Your task to perform on an android device: move an email to a new category in the gmail app Image 0: 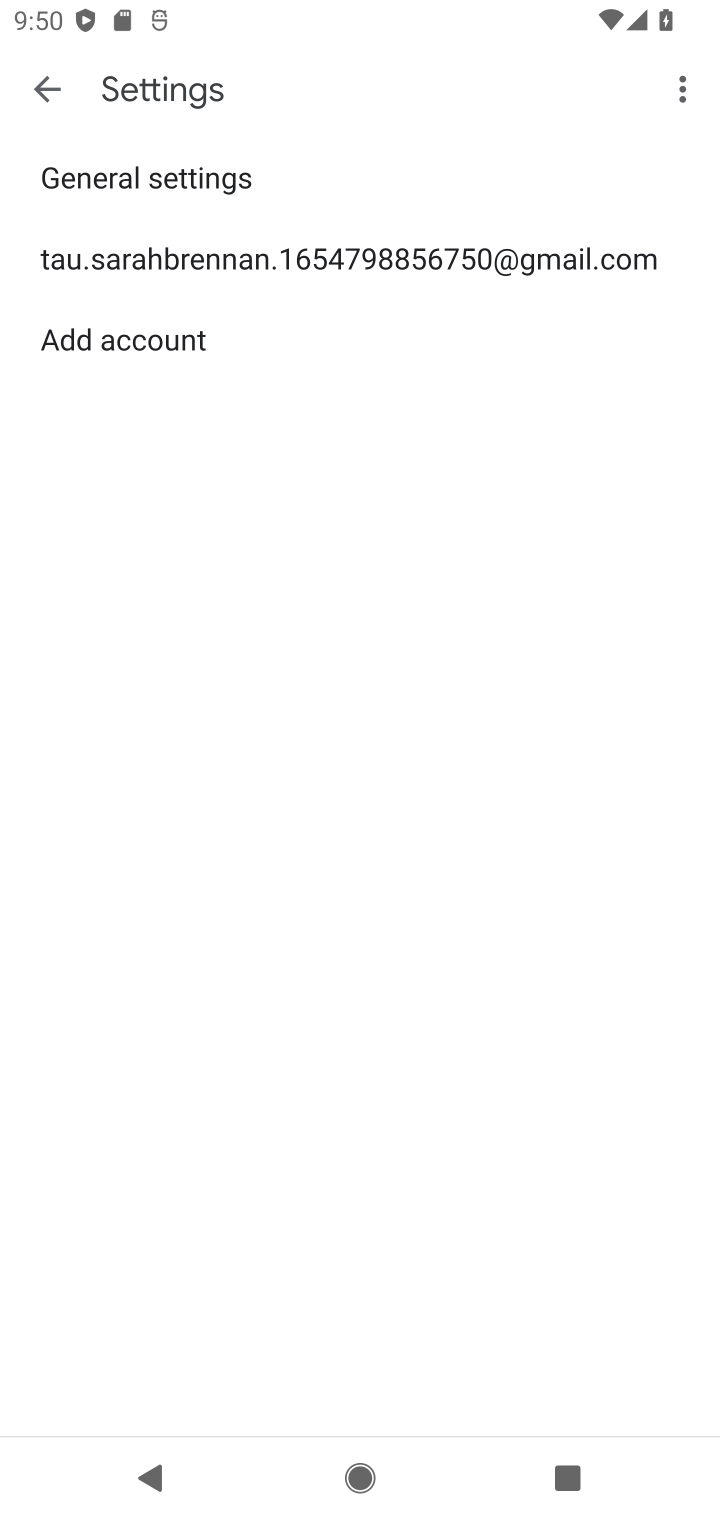
Step 0: press back button
Your task to perform on an android device: move an email to a new category in the gmail app Image 1: 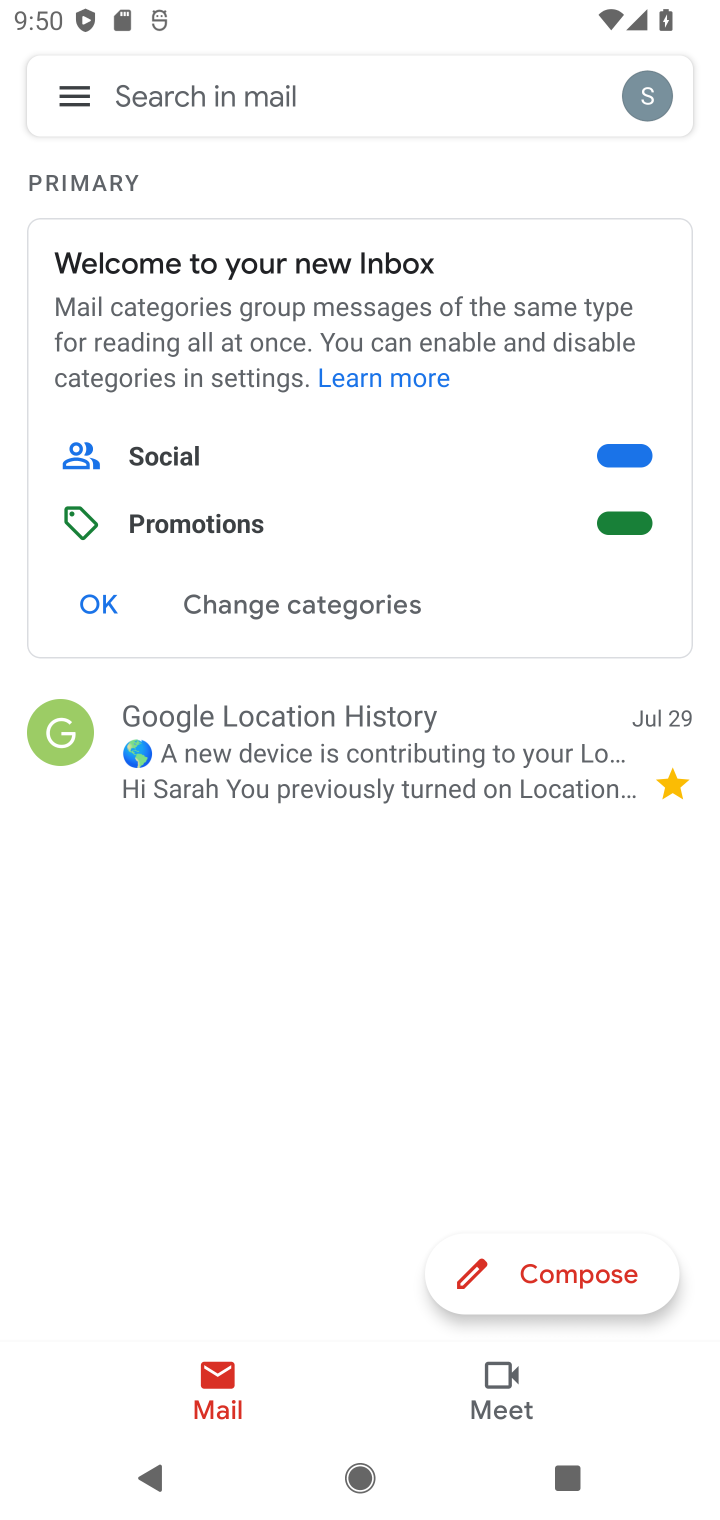
Step 1: press back button
Your task to perform on an android device: move an email to a new category in the gmail app Image 2: 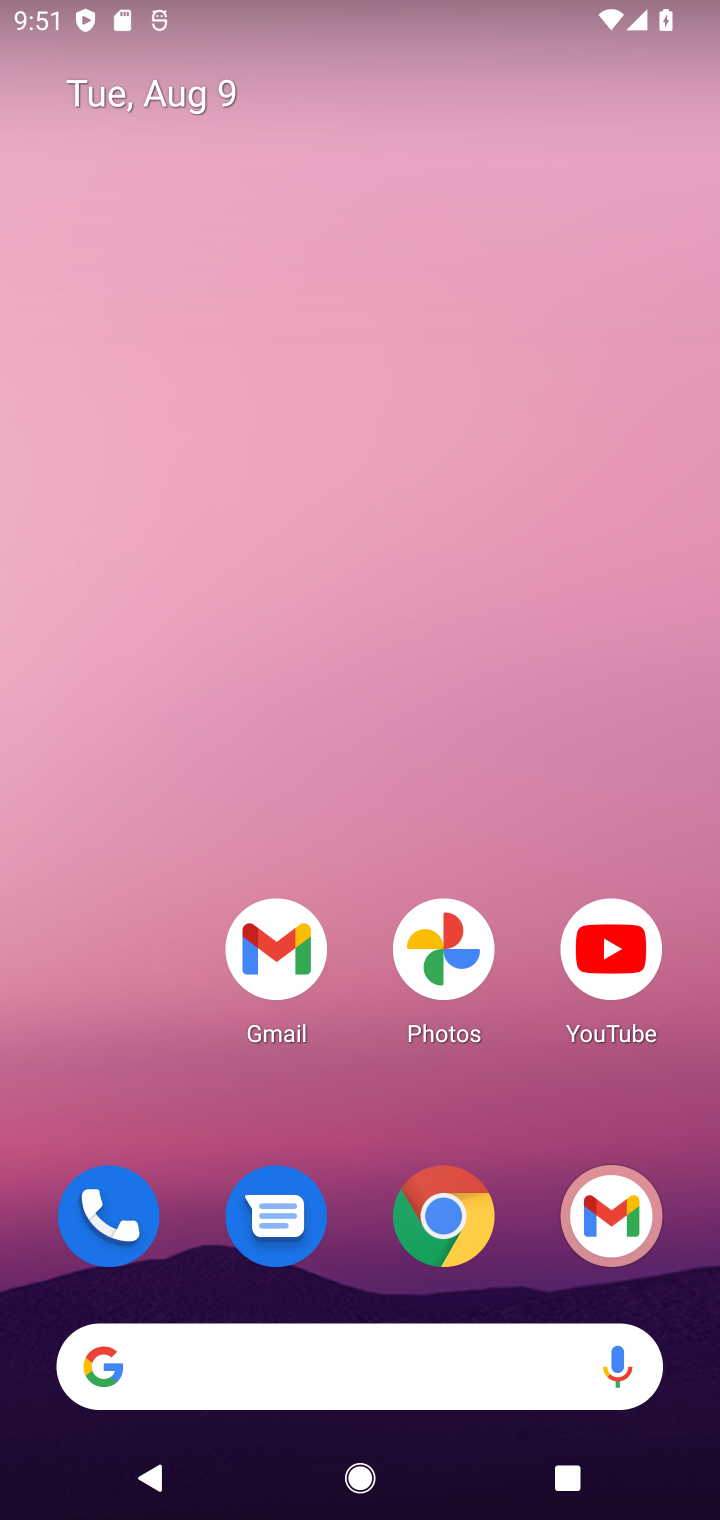
Step 2: click (282, 952)
Your task to perform on an android device: move an email to a new category in the gmail app Image 3: 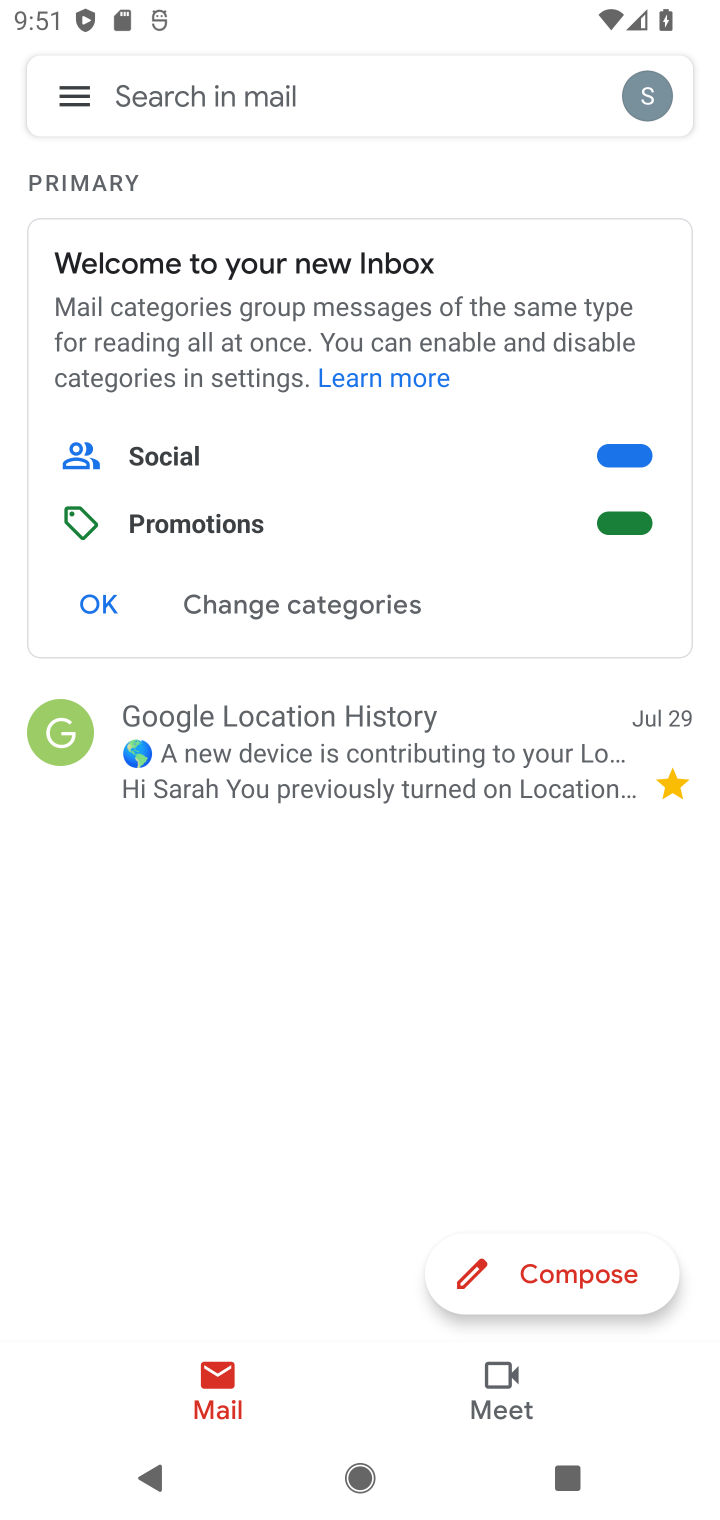
Step 3: click (291, 781)
Your task to perform on an android device: move an email to a new category in the gmail app Image 4: 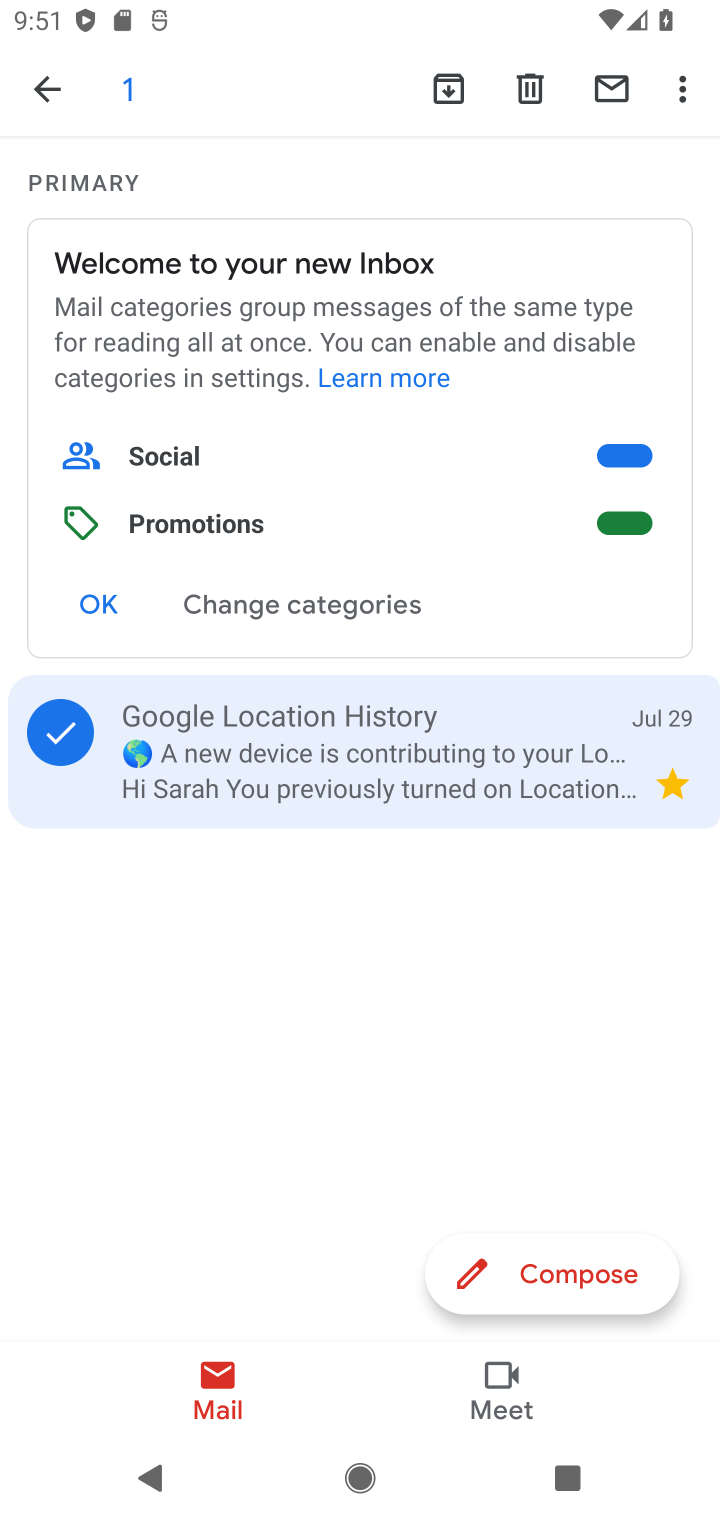
Step 4: click (690, 72)
Your task to perform on an android device: move an email to a new category in the gmail app Image 5: 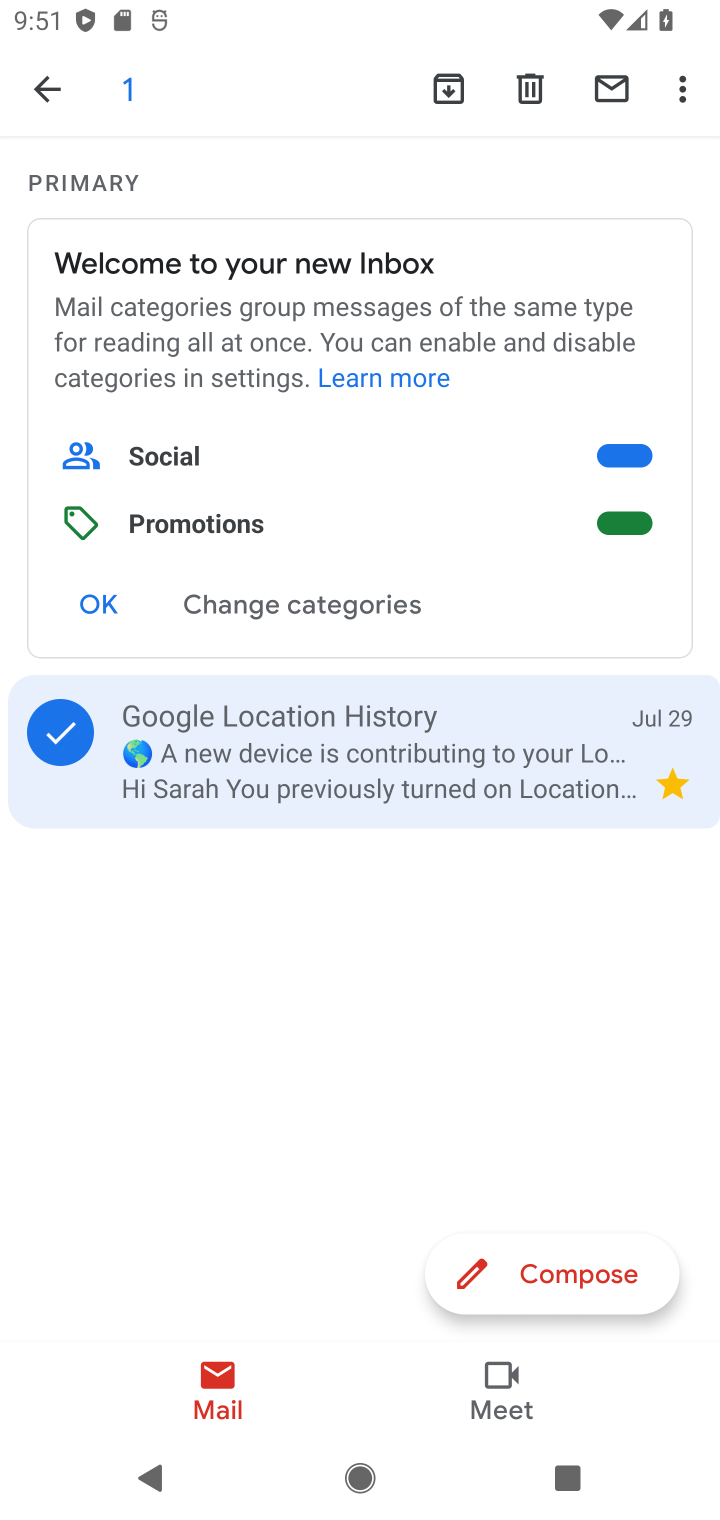
Step 5: click (676, 90)
Your task to perform on an android device: move an email to a new category in the gmail app Image 6: 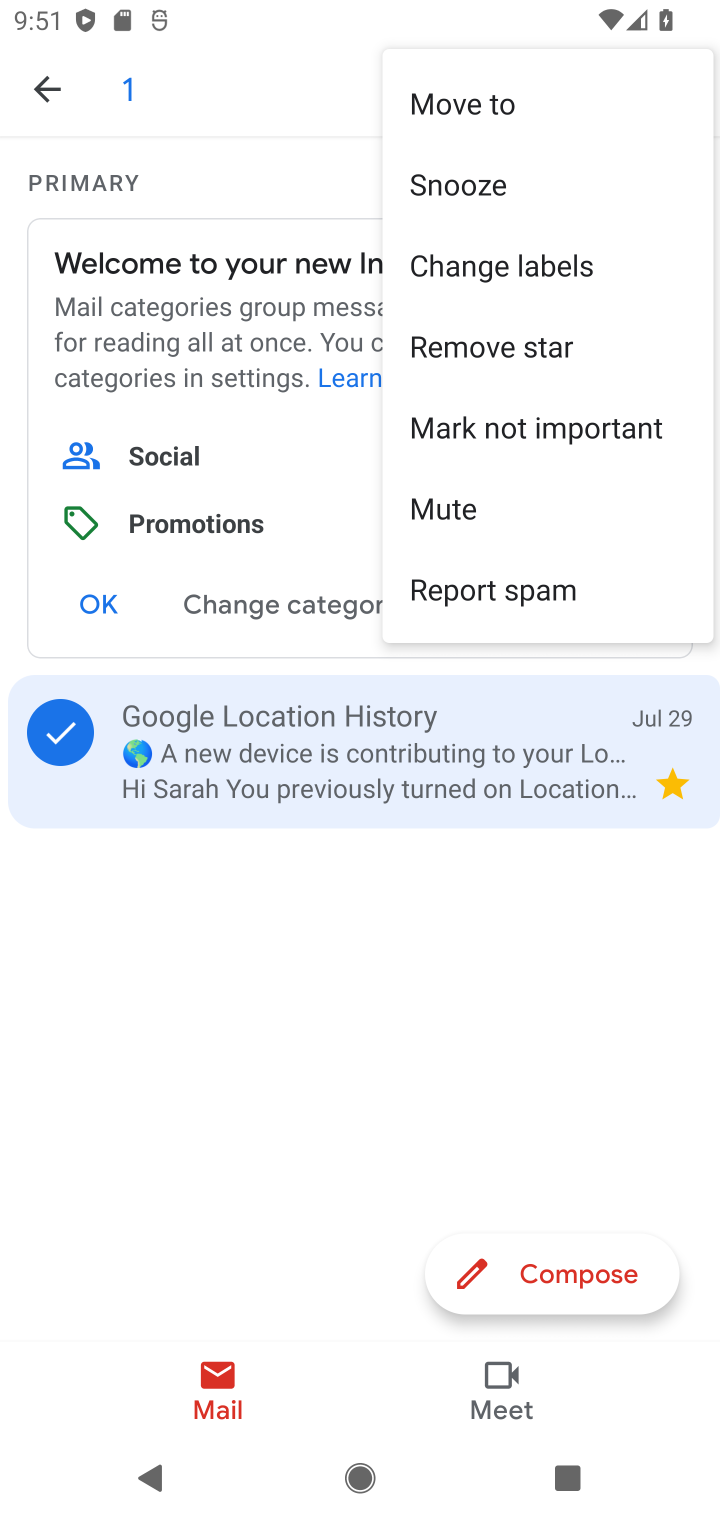
Step 6: click (457, 96)
Your task to perform on an android device: move an email to a new category in the gmail app Image 7: 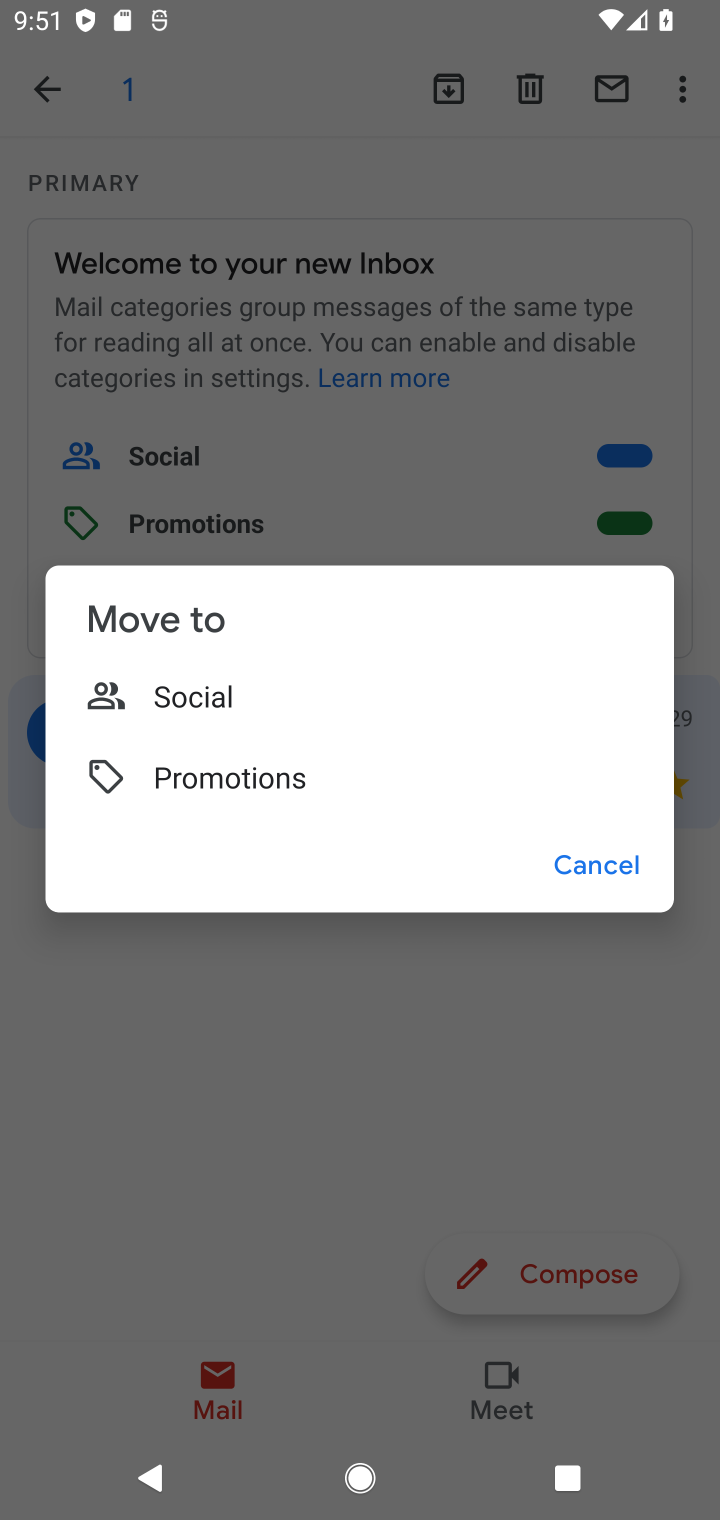
Step 7: click (598, 870)
Your task to perform on an android device: move an email to a new category in the gmail app Image 8: 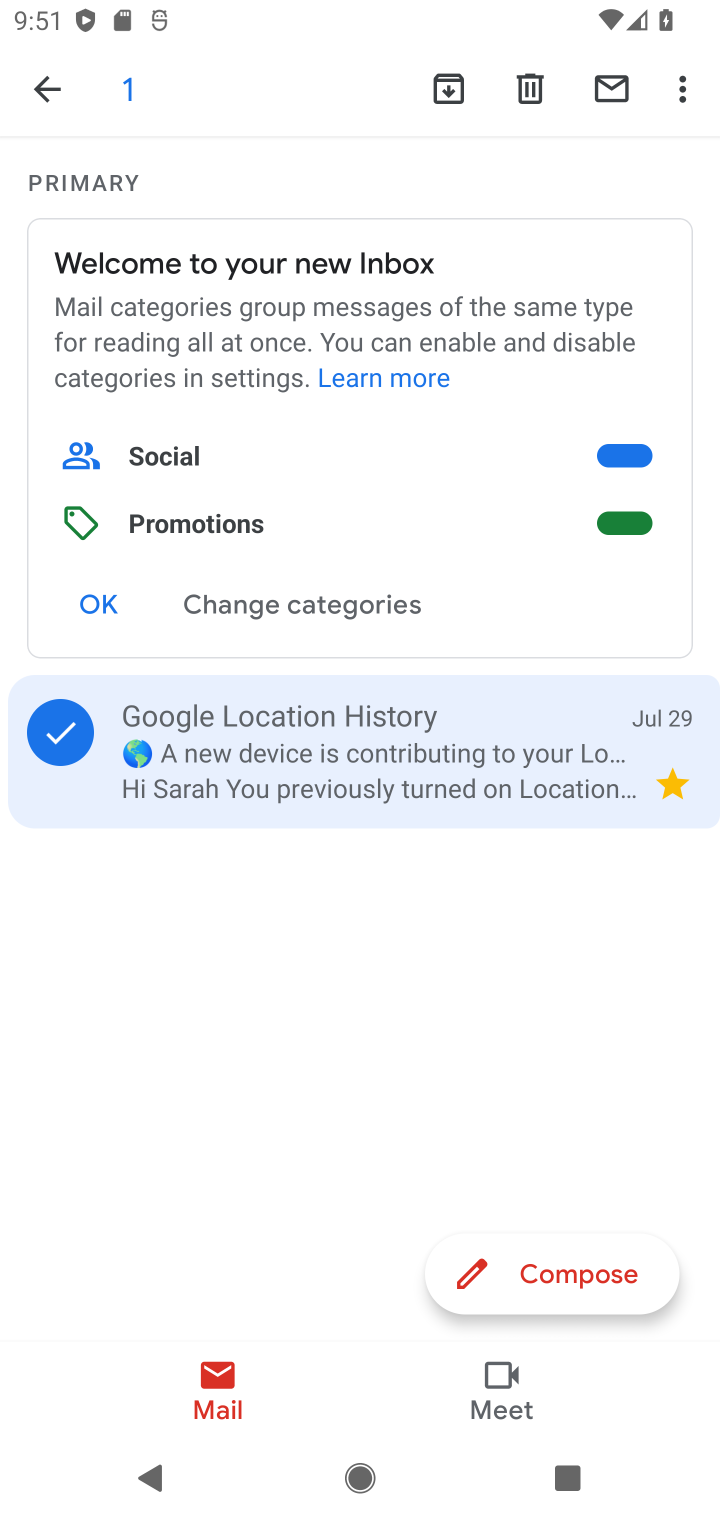
Step 8: click (668, 83)
Your task to perform on an android device: move an email to a new category in the gmail app Image 9: 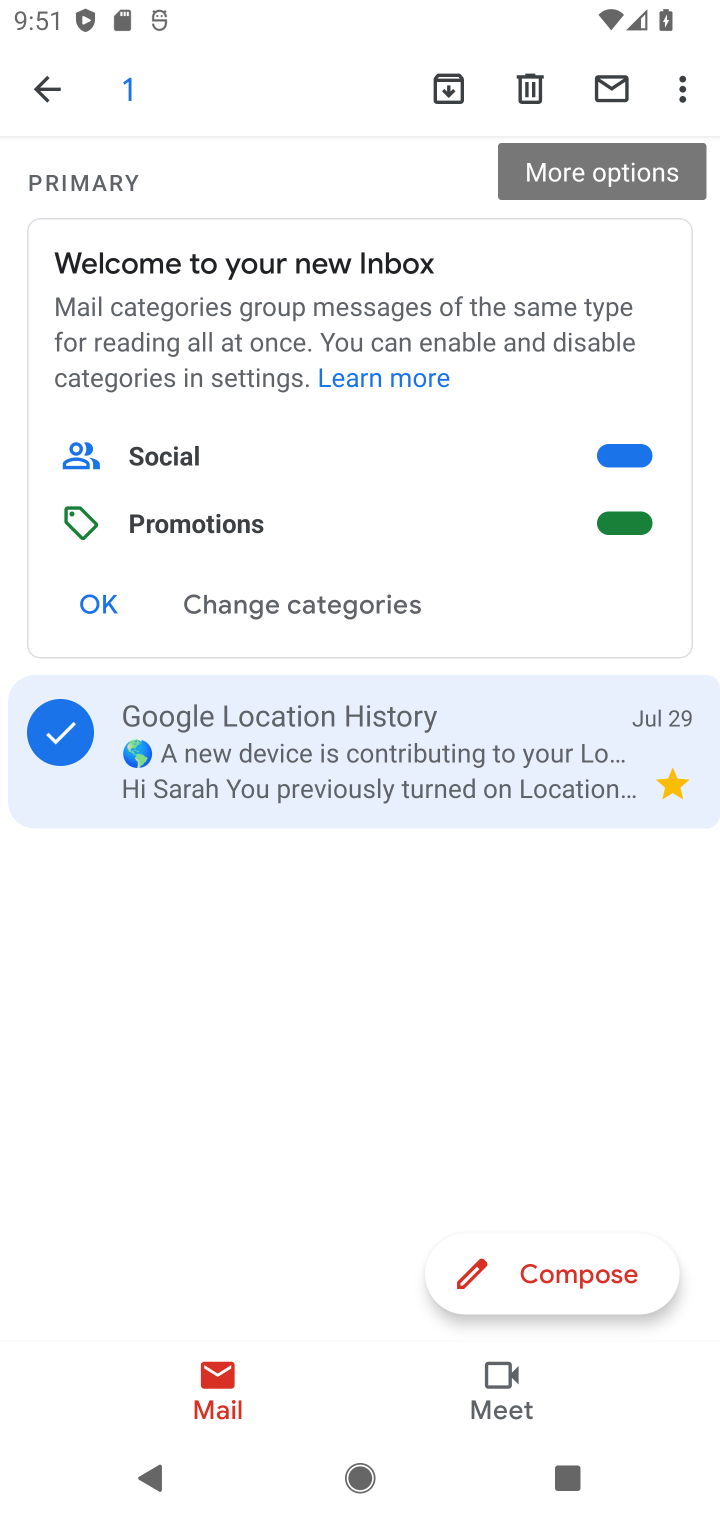
Step 9: click (694, 86)
Your task to perform on an android device: move an email to a new category in the gmail app Image 10: 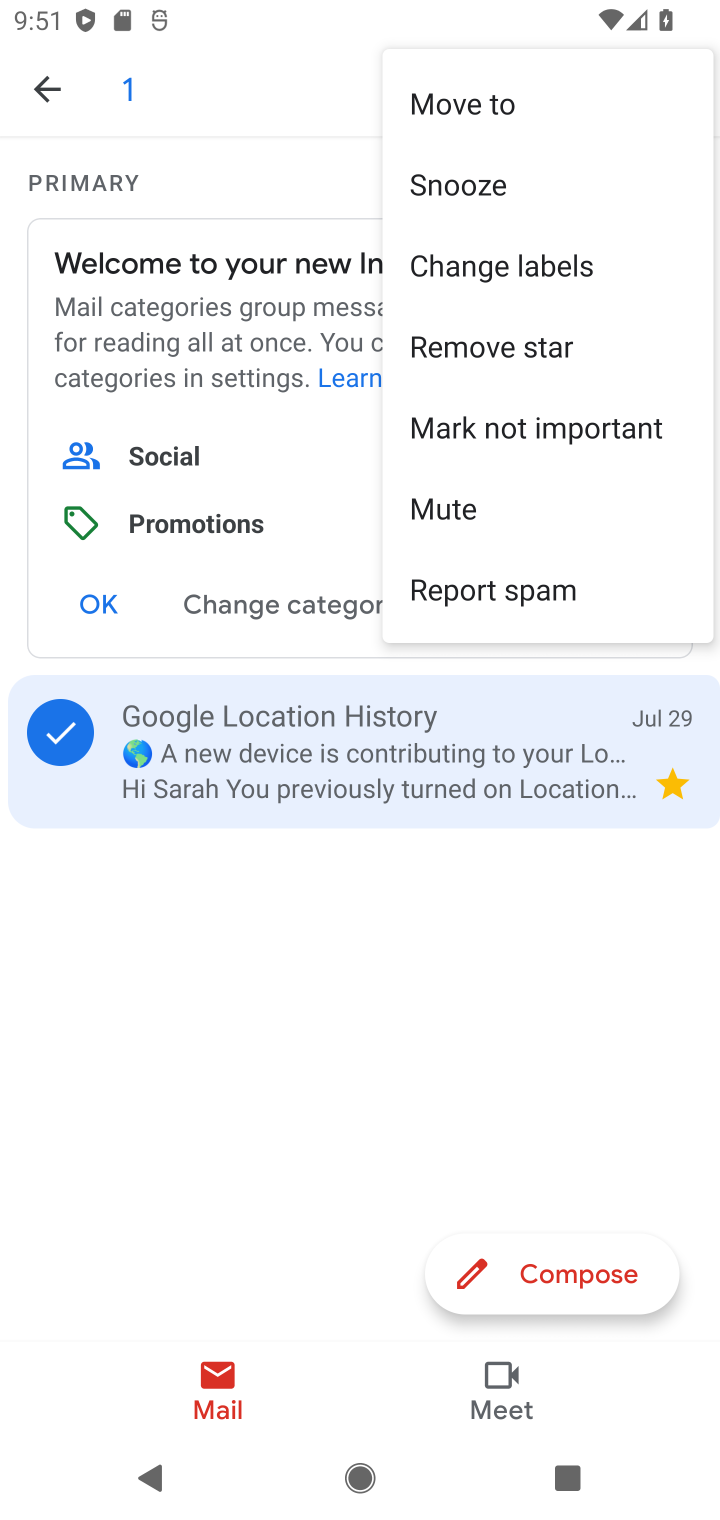
Step 10: click (515, 104)
Your task to perform on an android device: move an email to a new category in the gmail app Image 11: 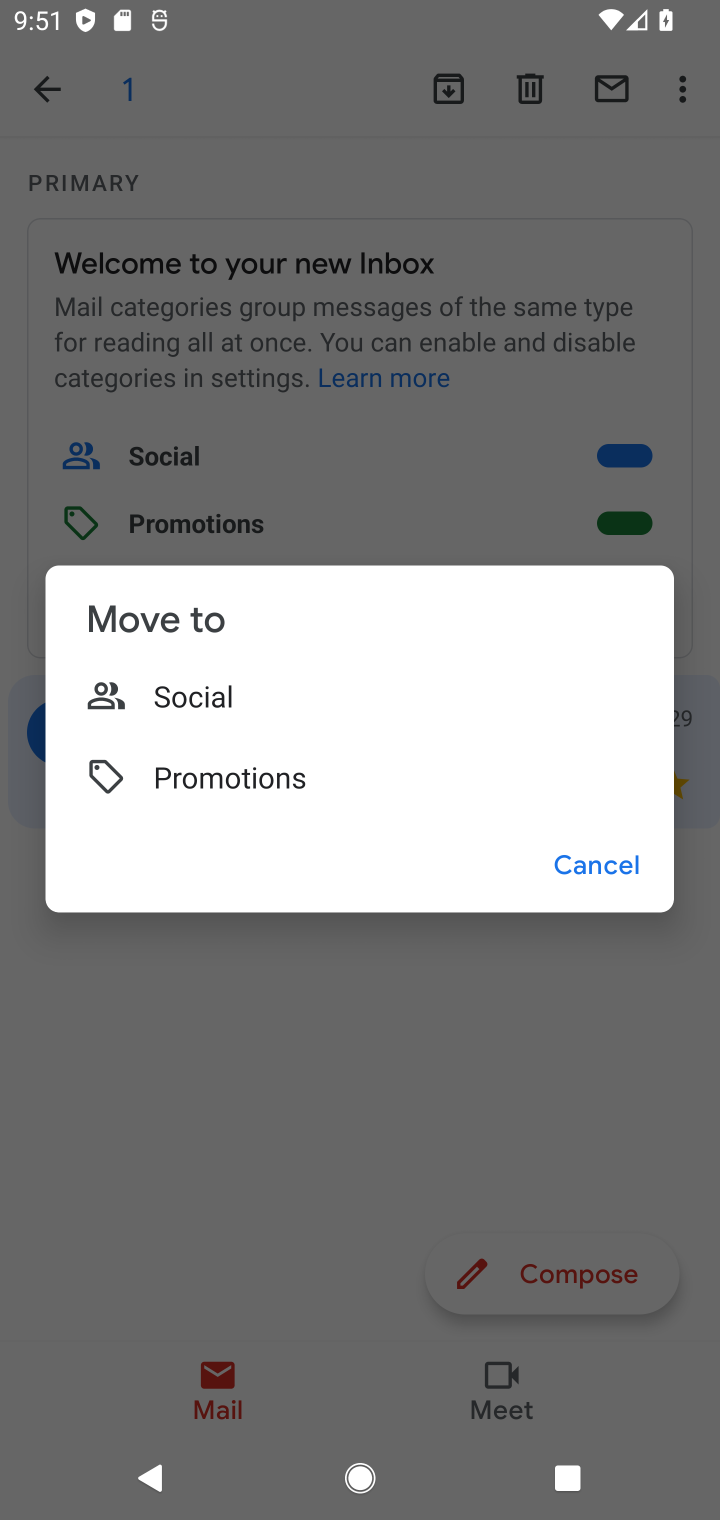
Step 11: click (215, 683)
Your task to perform on an android device: move an email to a new category in the gmail app Image 12: 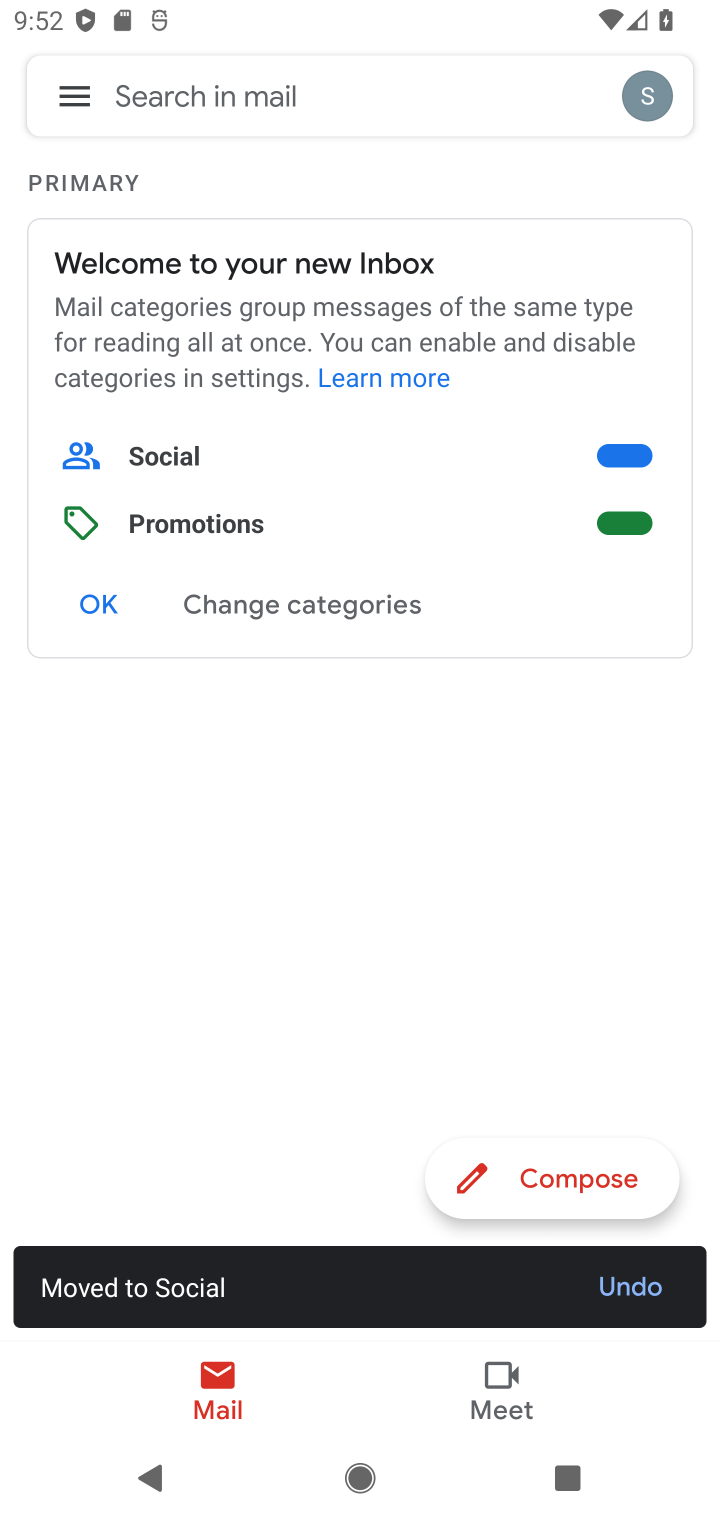
Step 12: task complete